Your task to perform on an android device: turn off wifi Image 0: 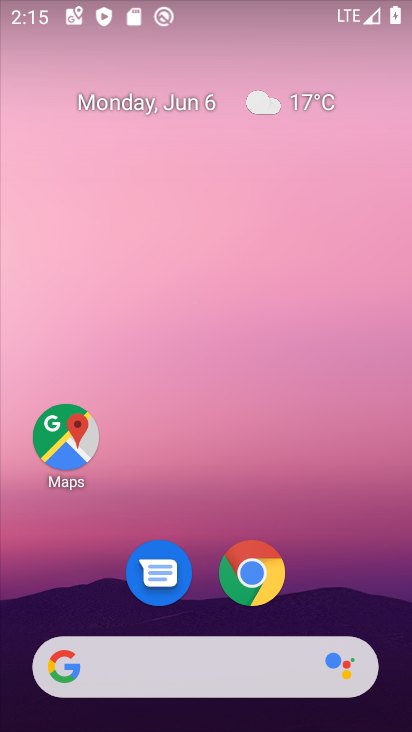
Step 0: drag from (354, 571) to (366, 178)
Your task to perform on an android device: turn off wifi Image 1: 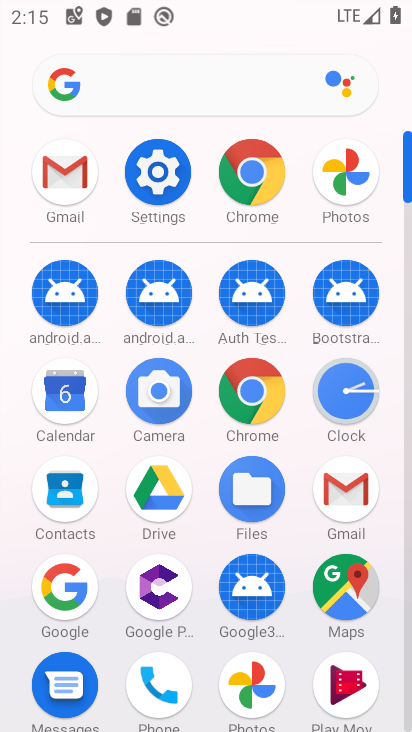
Step 1: click (163, 170)
Your task to perform on an android device: turn off wifi Image 2: 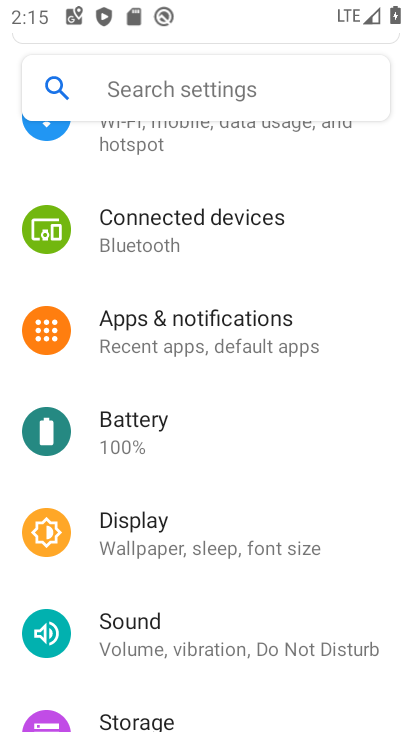
Step 2: drag from (356, 249) to (356, 348)
Your task to perform on an android device: turn off wifi Image 3: 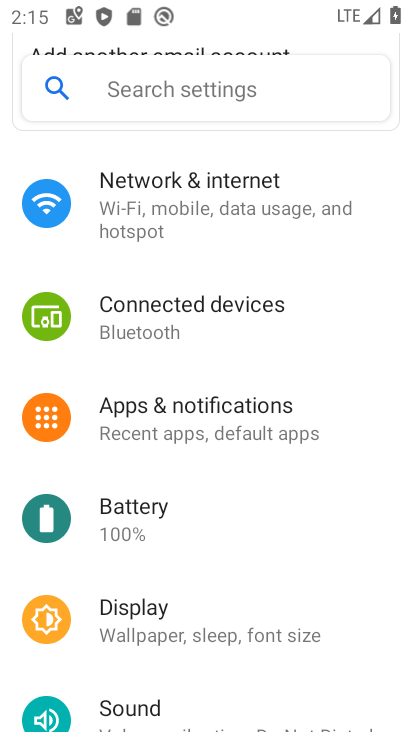
Step 3: drag from (356, 255) to (362, 489)
Your task to perform on an android device: turn off wifi Image 4: 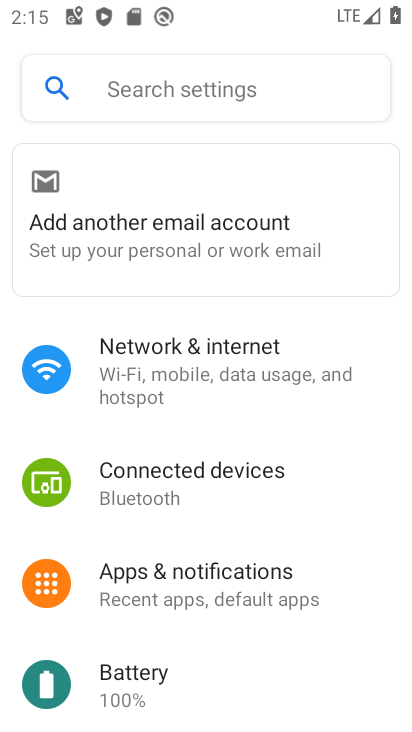
Step 4: drag from (357, 209) to (356, 495)
Your task to perform on an android device: turn off wifi Image 5: 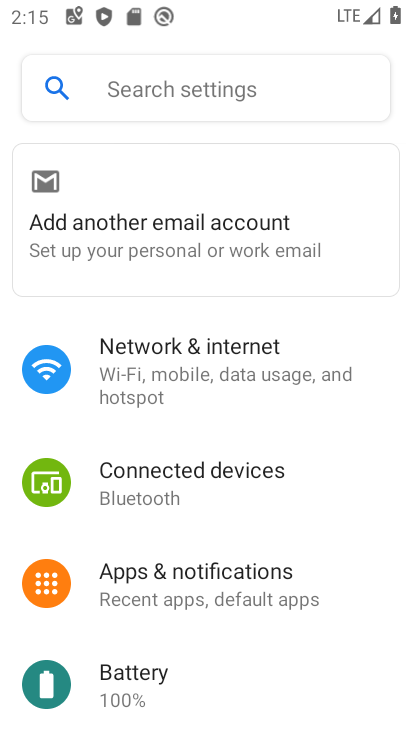
Step 5: click (256, 377)
Your task to perform on an android device: turn off wifi Image 6: 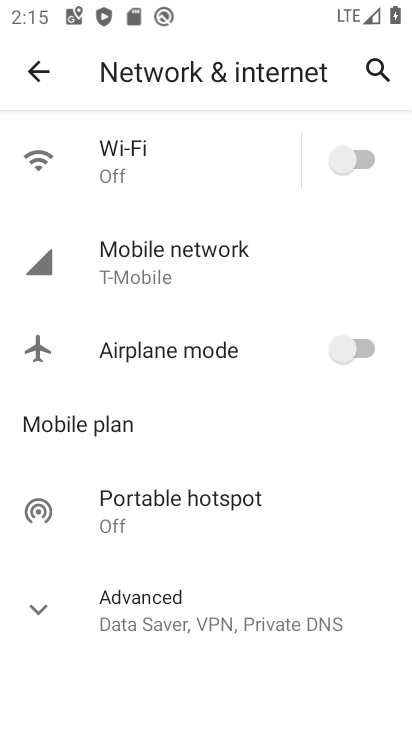
Step 6: task complete